Your task to perform on an android device: check out phone information Image 0: 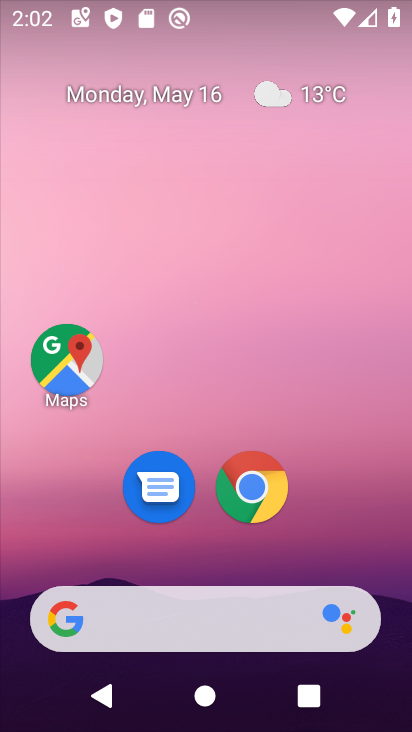
Step 0: drag from (380, 509) to (251, 0)
Your task to perform on an android device: check out phone information Image 1: 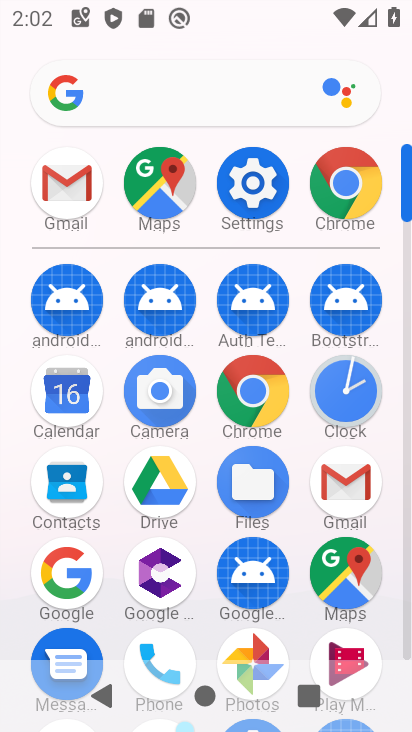
Step 1: drag from (12, 384) to (14, 317)
Your task to perform on an android device: check out phone information Image 2: 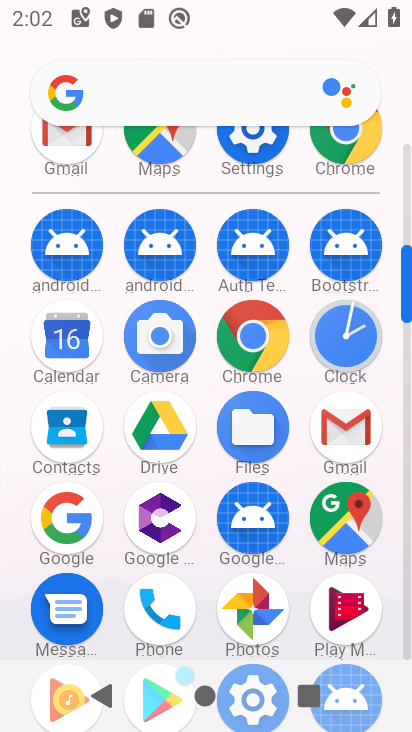
Step 2: drag from (20, 530) to (42, 113)
Your task to perform on an android device: check out phone information Image 3: 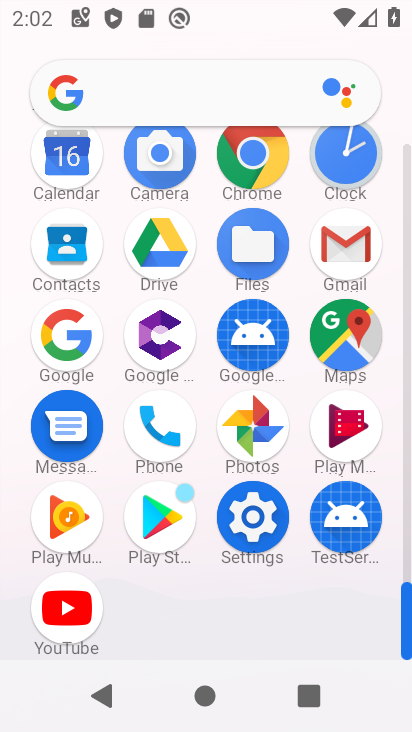
Step 3: click (255, 511)
Your task to perform on an android device: check out phone information Image 4: 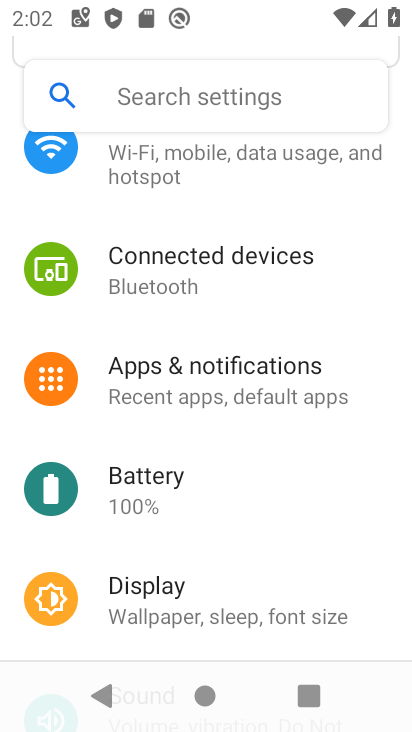
Step 4: drag from (334, 519) to (384, 67)
Your task to perform on an android device: check out phone information Image 5: 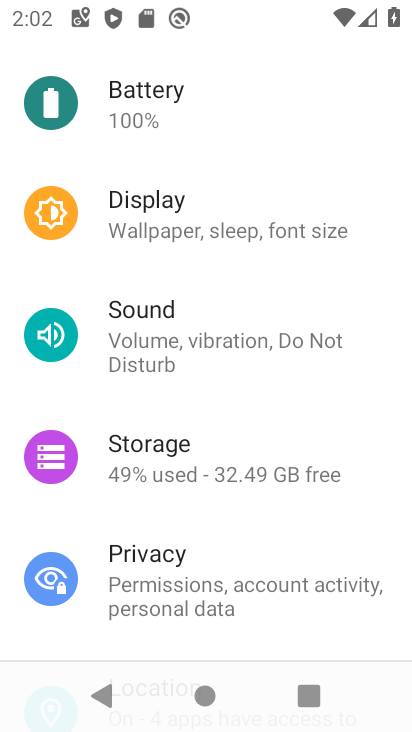
Step 5: drag from (303, 474) to (289, 63)
Your task to perform on an android device: check out phone information Image 6: 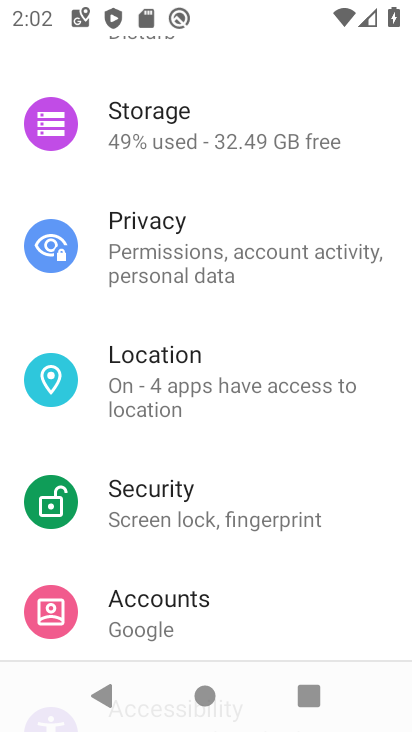
Step 6: drag from (267, 632) to (269, 134)
Your task to perform on an android device: check out phone information Image 7: 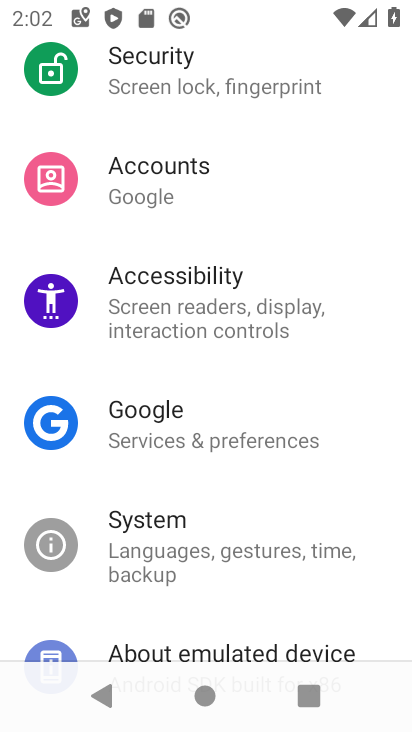
Step 7: drag from (284, 564) to (304, 145)
Your task to perform on an android device: check out phone information Image 8: 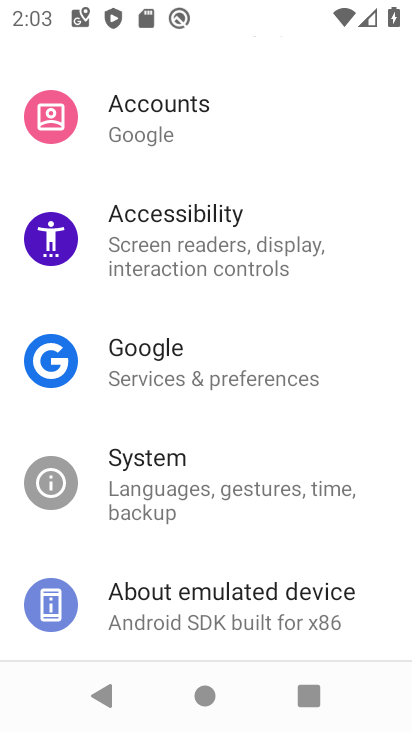
Step 8: drag from (278, 473) to (282, 109)
Your task to perform on an android device: check out phone information Image 9: 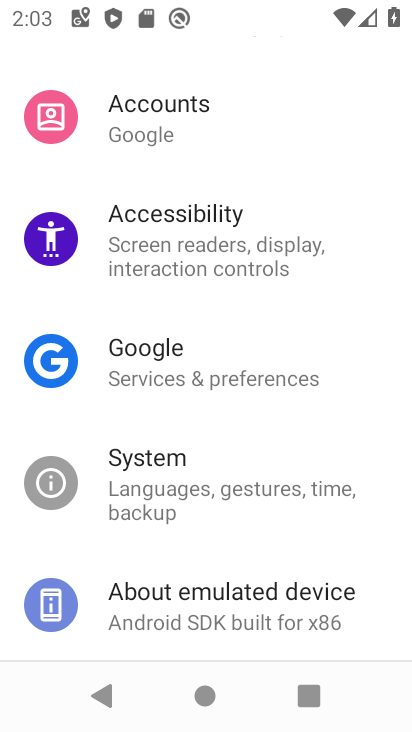
Step 9: click (203, 583)
Your task to perform on an android device: check out phone information Image 10: 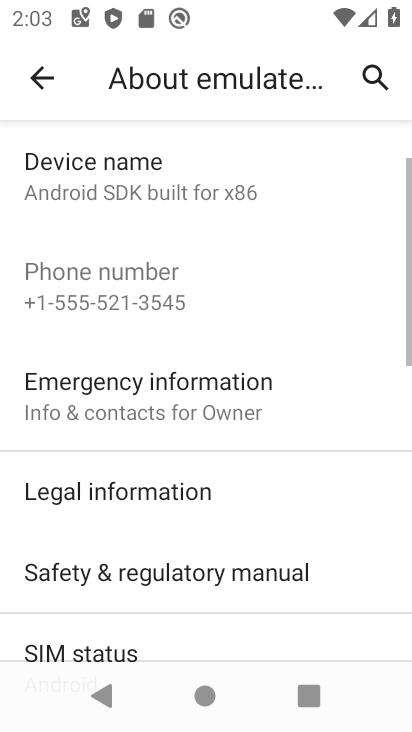
Step 10: task complete